Your task to perform on an android device: change the upload size in google photos Image 0: 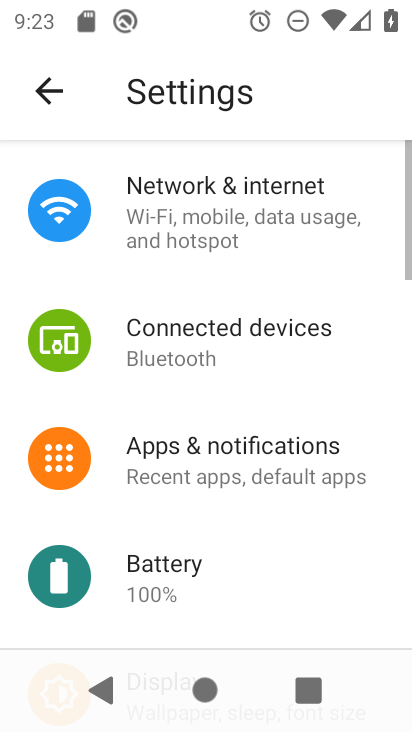
Step 0: drag from (372, 520) to (314, 186)
Your task to perform on an android device: change the upload size in google photos Image 1: 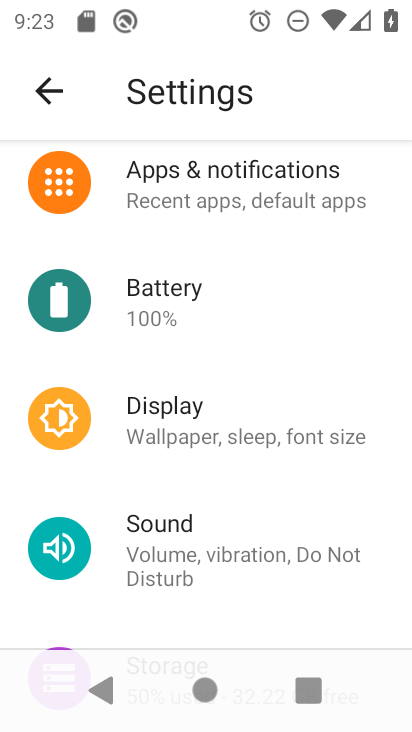
Step 1: press home button
Your task to perform on an android device: change the upload size in google photos Image 2: 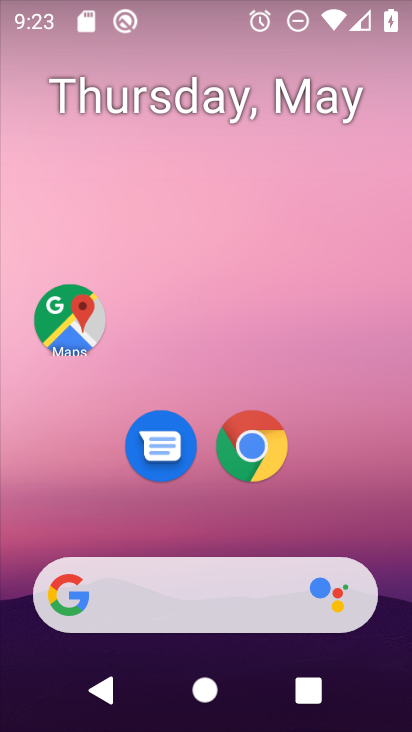
Step 2: drag from (339, 526) to (359, 186)
Your task to perform on an android device: change the upload size in google photos Image 3: 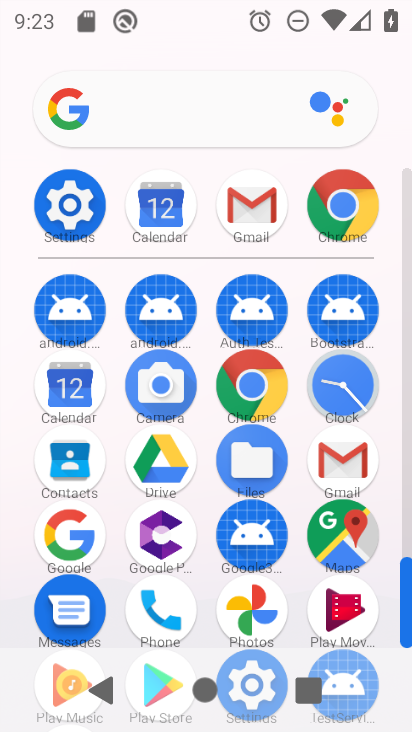
Step 3: click (245, 619)
Your task to perform on an android device: change the upload size in google photos Image 4: 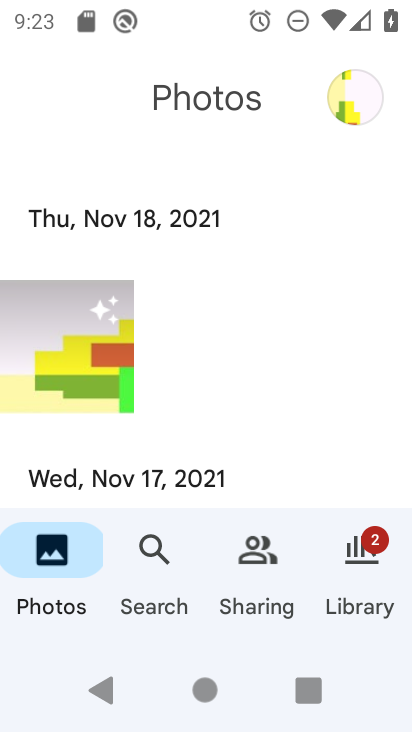
Step 4: click (348, 106)
Your task to perform on an android device: change the upload size in google photos Image 5: 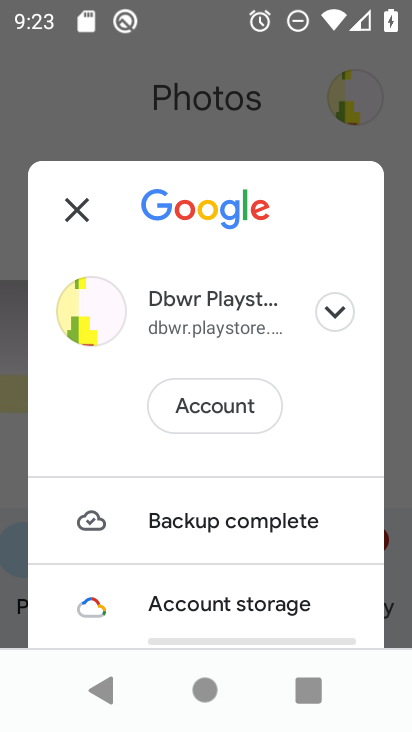
Step 5: drag from (269, 576) to (288, 243)
Your task to perform on an android device: change the upload size in google photos Image 6: 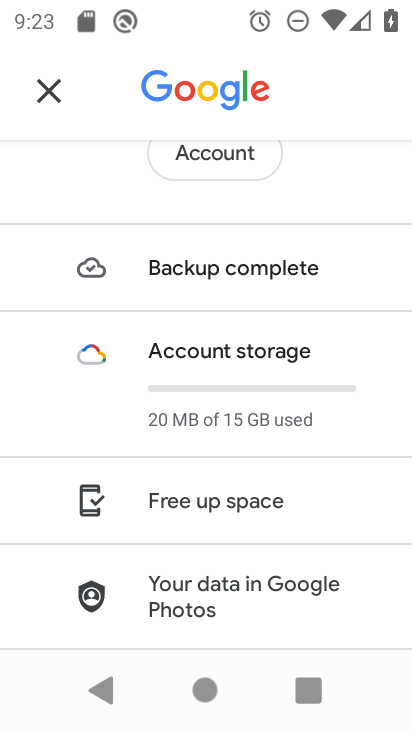
Step 6: drag from (267, 580) to (282, 243)
Your task to perform on an android device: change the upload size in google photos Image 7: 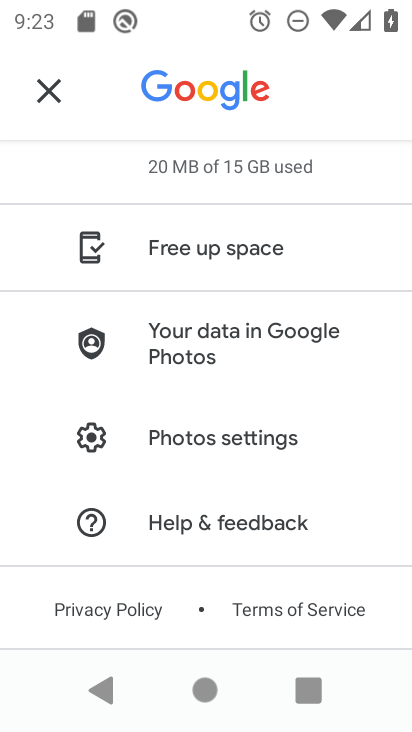
Step 7: click (260, 451)
Your task to perform on an android device: change the upload size in google photos Image 8: 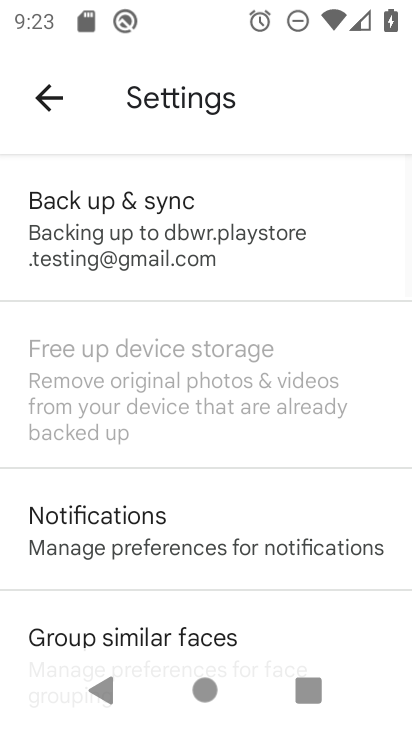
Step 8: click (174, 243)
Your task to perform on an android device: change the upload size in google photos Image 9: 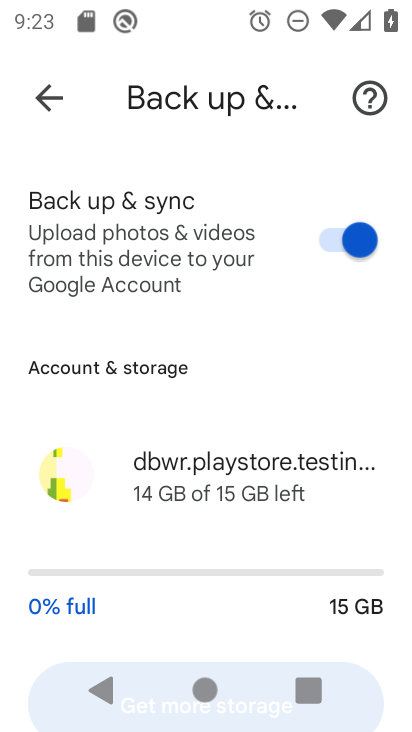
Step 9: drag from (164, 618) to (209, 300)
Your task to perform on an android device: change the upload size in google photos Image 10: 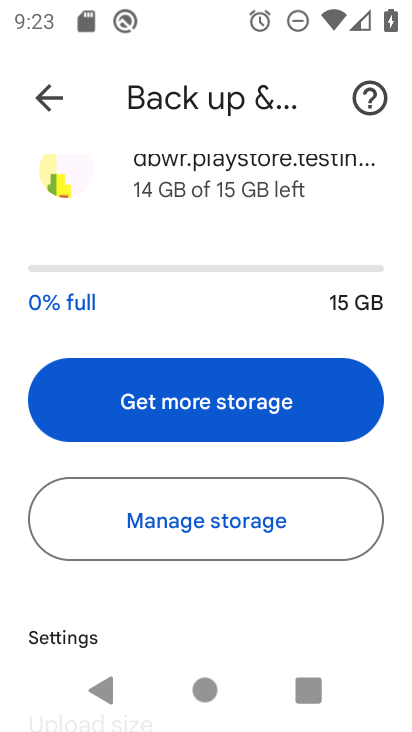
Step 10: drag from (178, 200) to (183, 563)
Your task to perform on an android device: change the upload size in google photos Image 11: 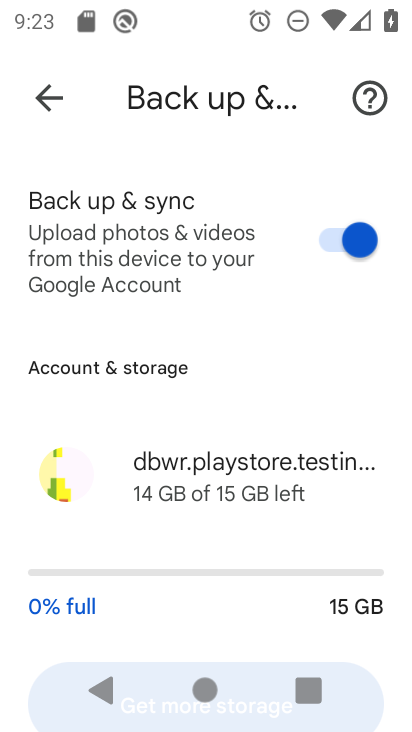
Step 11: drag from (159, 529) to (167, 255)
Your task to perform on an android device: change the upload size in google photos Image 12: 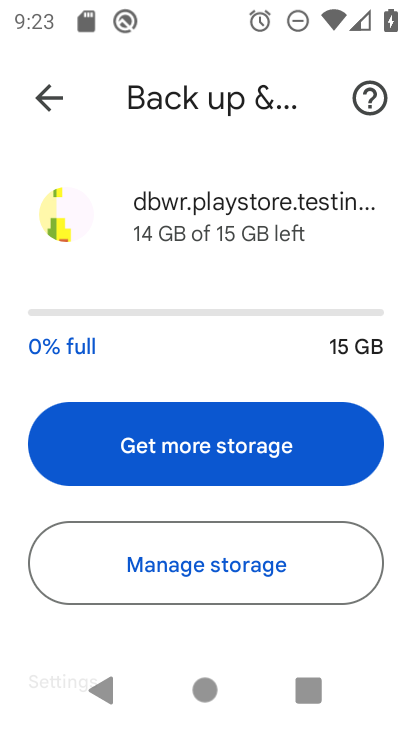
Step 12: drag from (193, 584) to (193, 272)
Your task to perform on an android device: change the upload size in google photos Image 13: 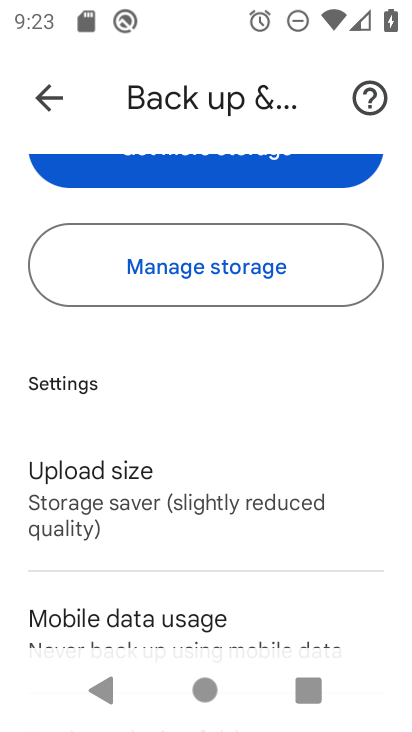
Step 13: click (148, 509)
Your task to perform on an android device: change the upload size in google photos Image 14: 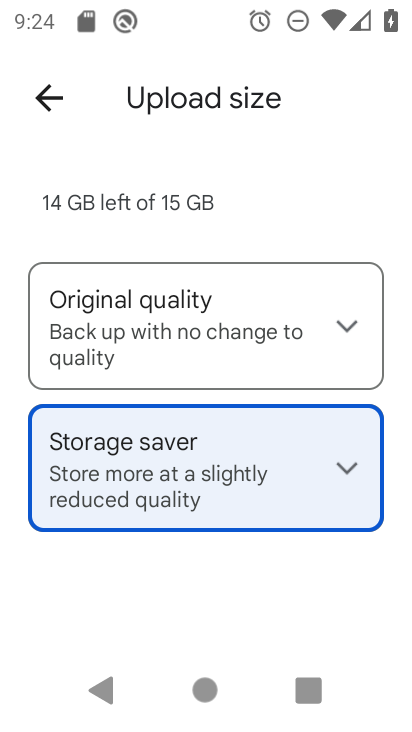
Step 14: click (105, 337)
Your task to perform on an android device: change the upload size in google photos Image 15: 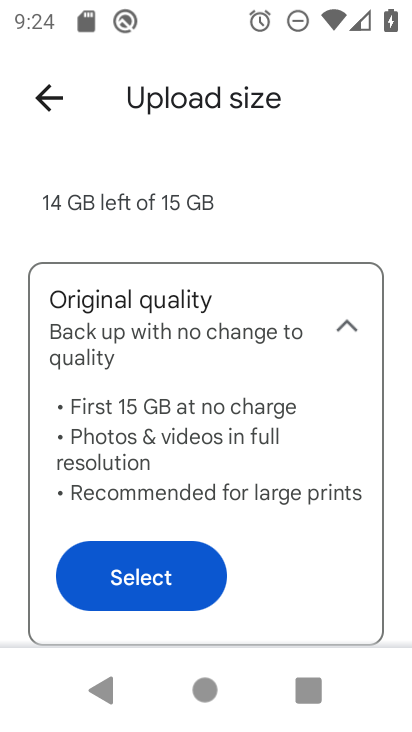
Step 15: click (117, 584)
Your task to perform on an android device: change the upload size in google photos Image 16: 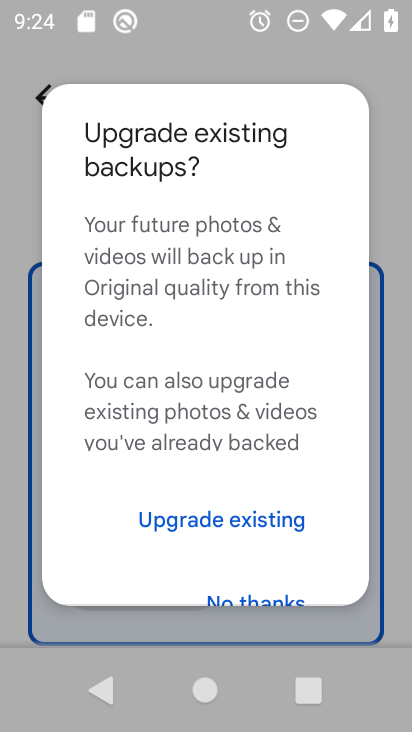
Step 16: click (227, 601)
Your task to perform on an android device: change the upload size in google photos Image 17: 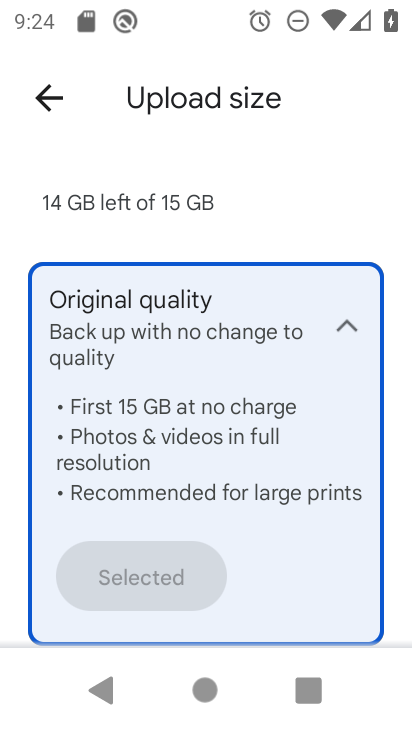
Step 17: task complete